Your task to perform on an android device: Open Google Chrome and open the bookmarks view Image 0: 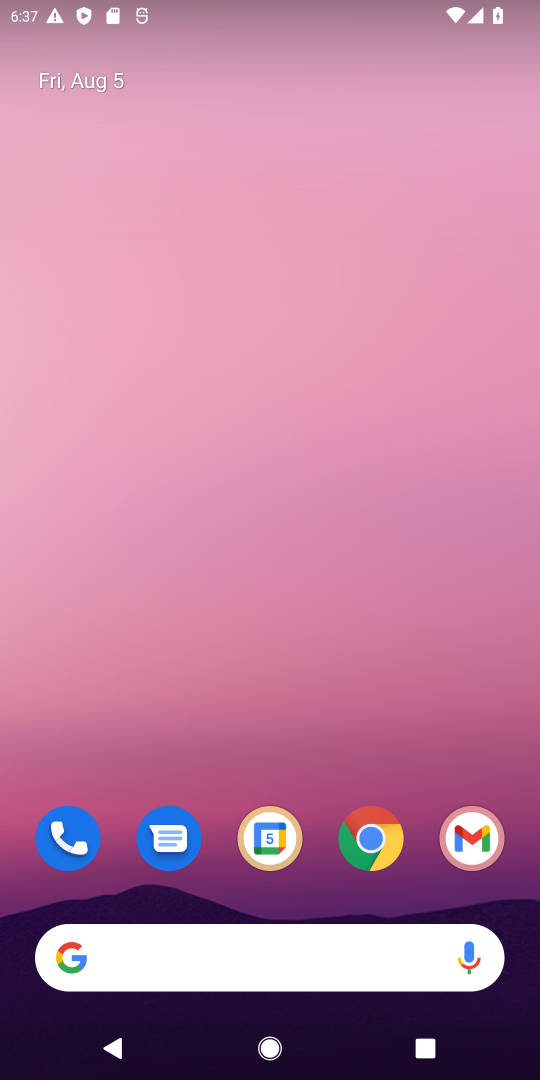
Step 0: press home button
Your task to perform on an android device: Open Google Chrome and open the bookmarks view Image 1: 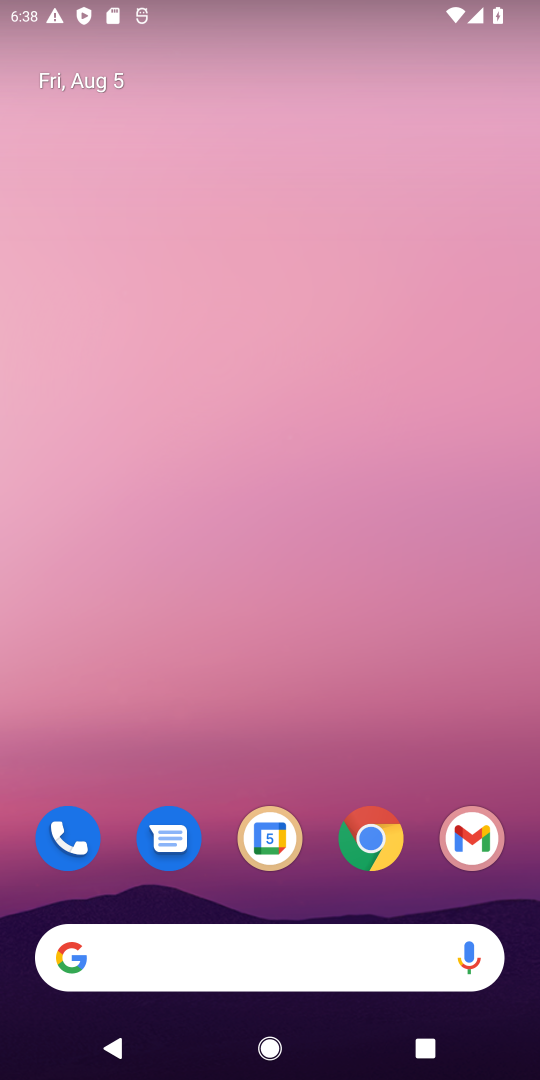
Step 1: click (357, 837)
Your task to perform on an android device: Open Google Chrome and open the bookmarks view Image 2: 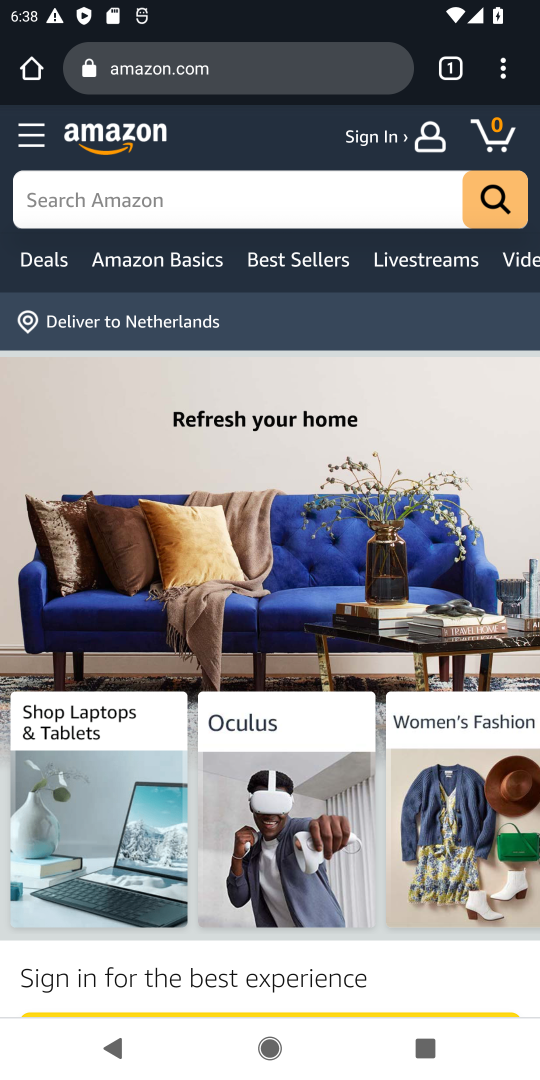
Step 2: task complete